Your task to perform on an android device: When is my next meeting? Image 0: 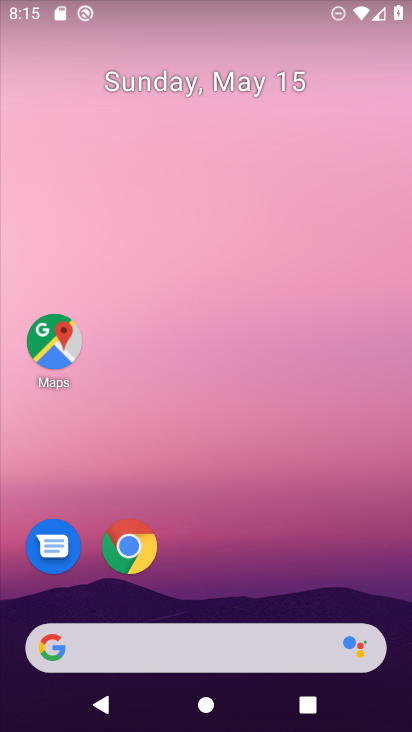
Step 0: drag from (278, 515) to (287, 42)
Your task to perform on an android device: When is my next meeting? Image 1: 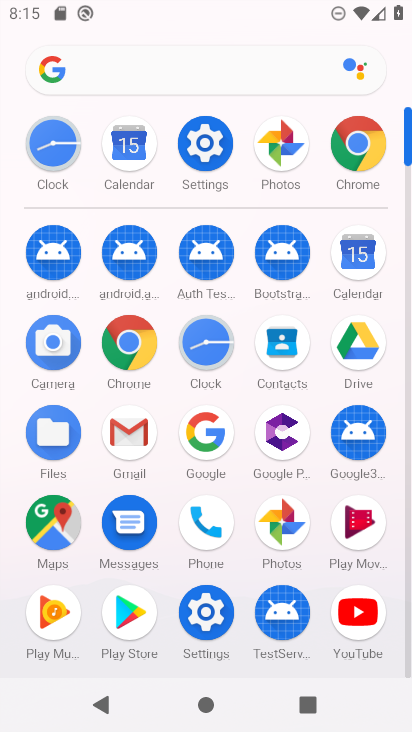
Step 1: click (125, 155)
Your task to perform on an android device: When is my next meeting? Image 2: 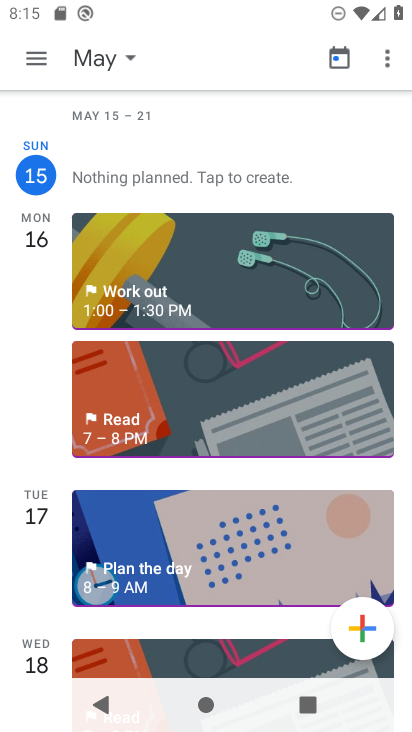
Step 2: task complete